Your task to perform on an android device: Open the map Image 0: 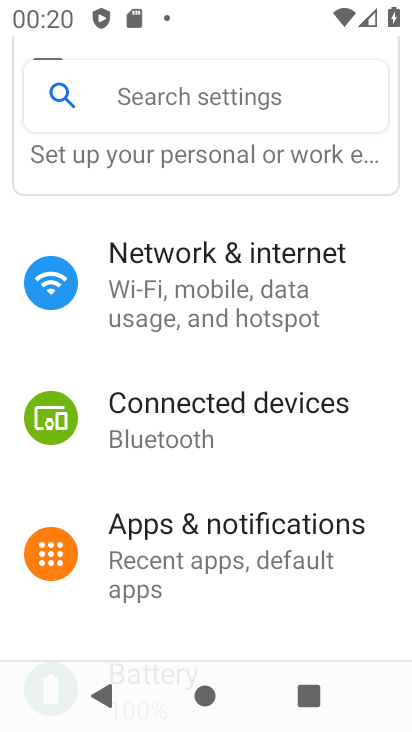
Step 0: press home button
Your task to perform on an android device: Open the map Image 1: 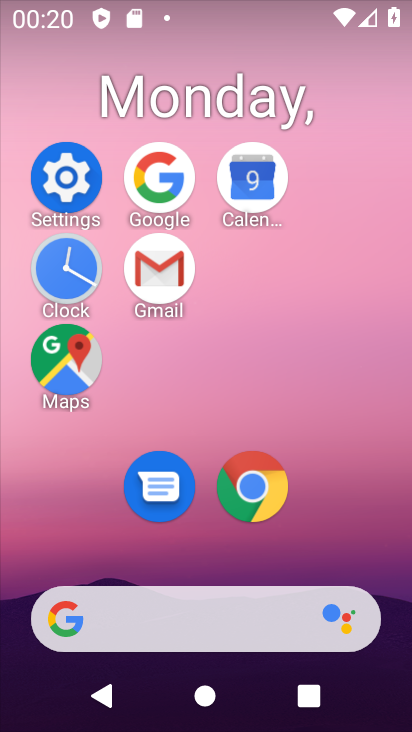
Step 1: click (77, 354)
Your task to perform on an android device: Open the map Image 2: 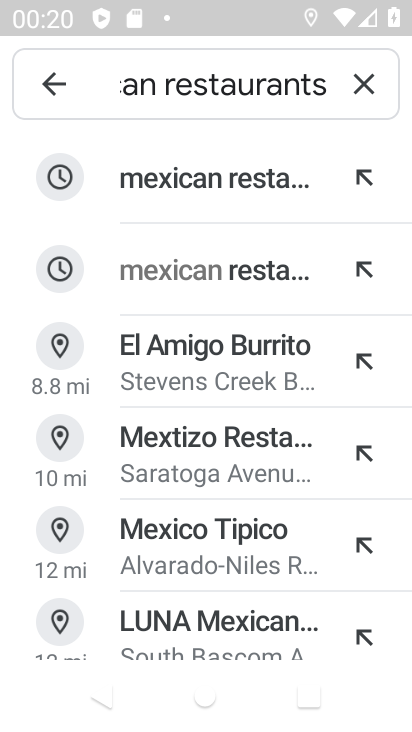
Step 2: task complete